Your task to perform on an android device: Open Google Chrome and click the shortcut for Amazon.com Image 0: 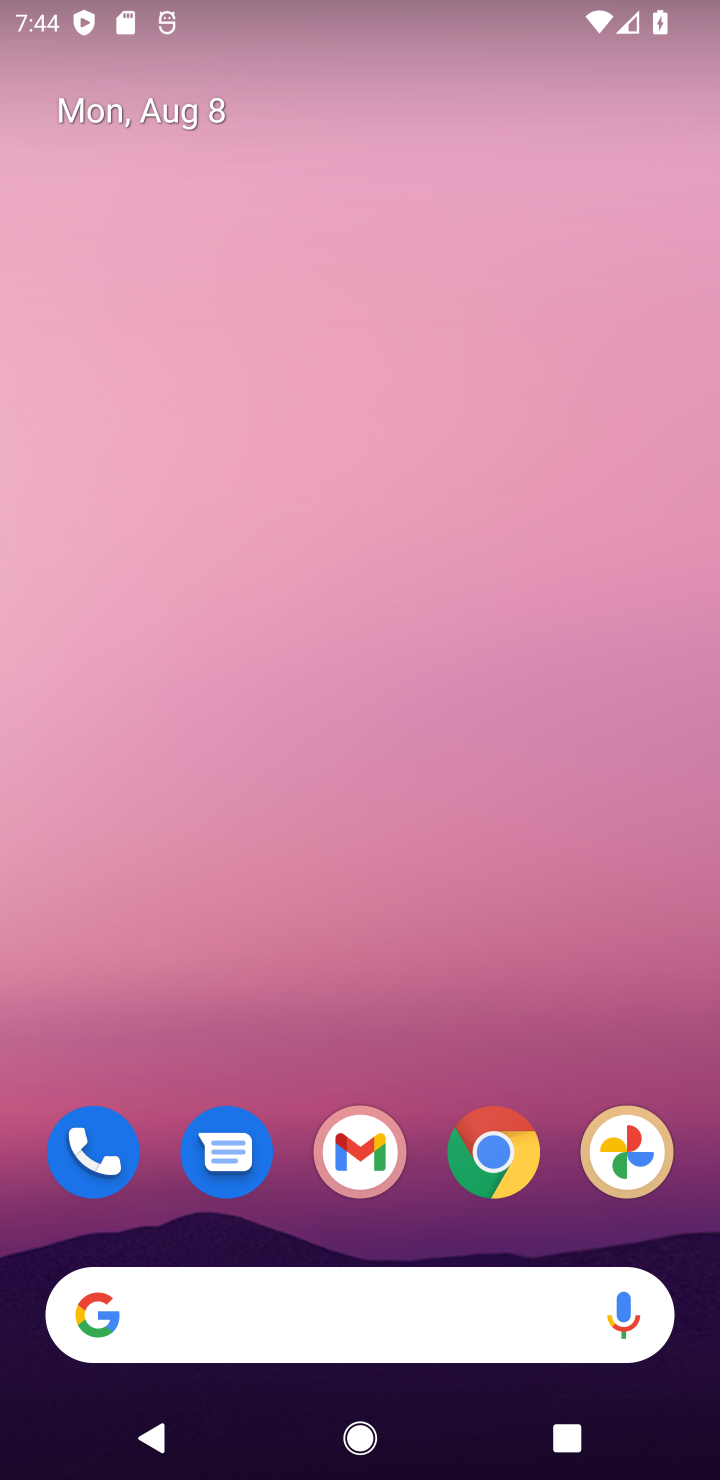
Step 0: click (499, 1147)
Your task to perform on an android device: Open Google Chrome and click the shortcut for Amazon.com Image 1: 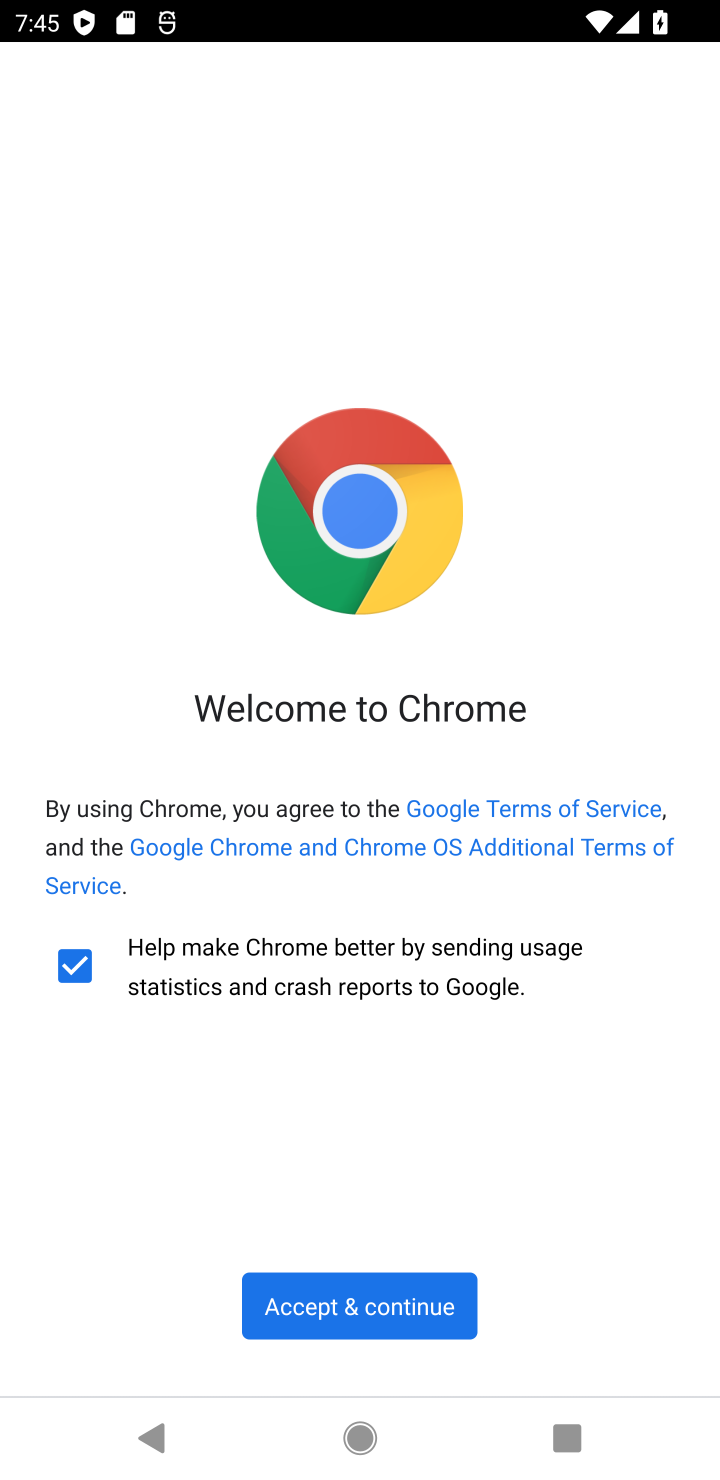
Step 1: click (371, 1299)
Your task to perform on an android device: Open Google Chrome and click the shortcut for Amazon.com Image 2: 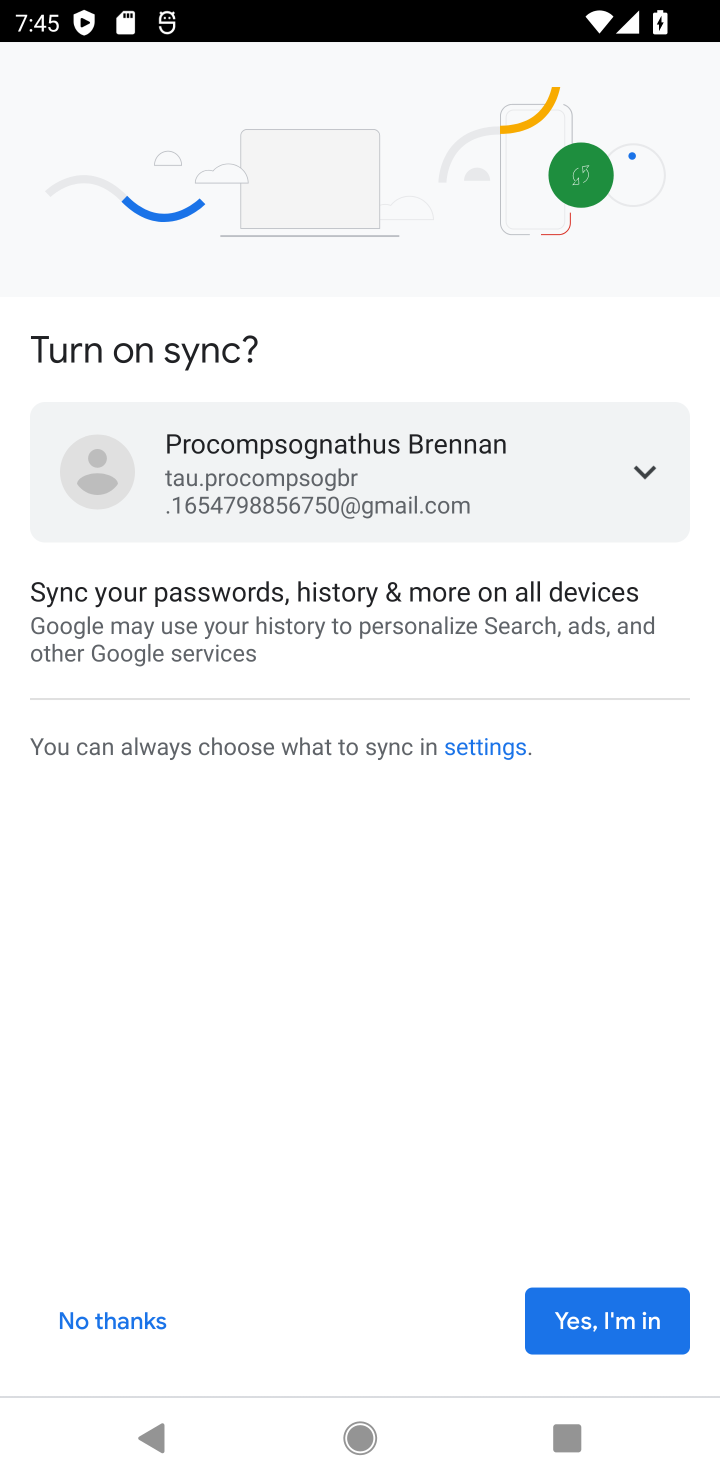
Step 2: click (606, 1336)
Your task to perform on an android device: Open Google Chrome and click the shortcut for Amazon.com Image 3: 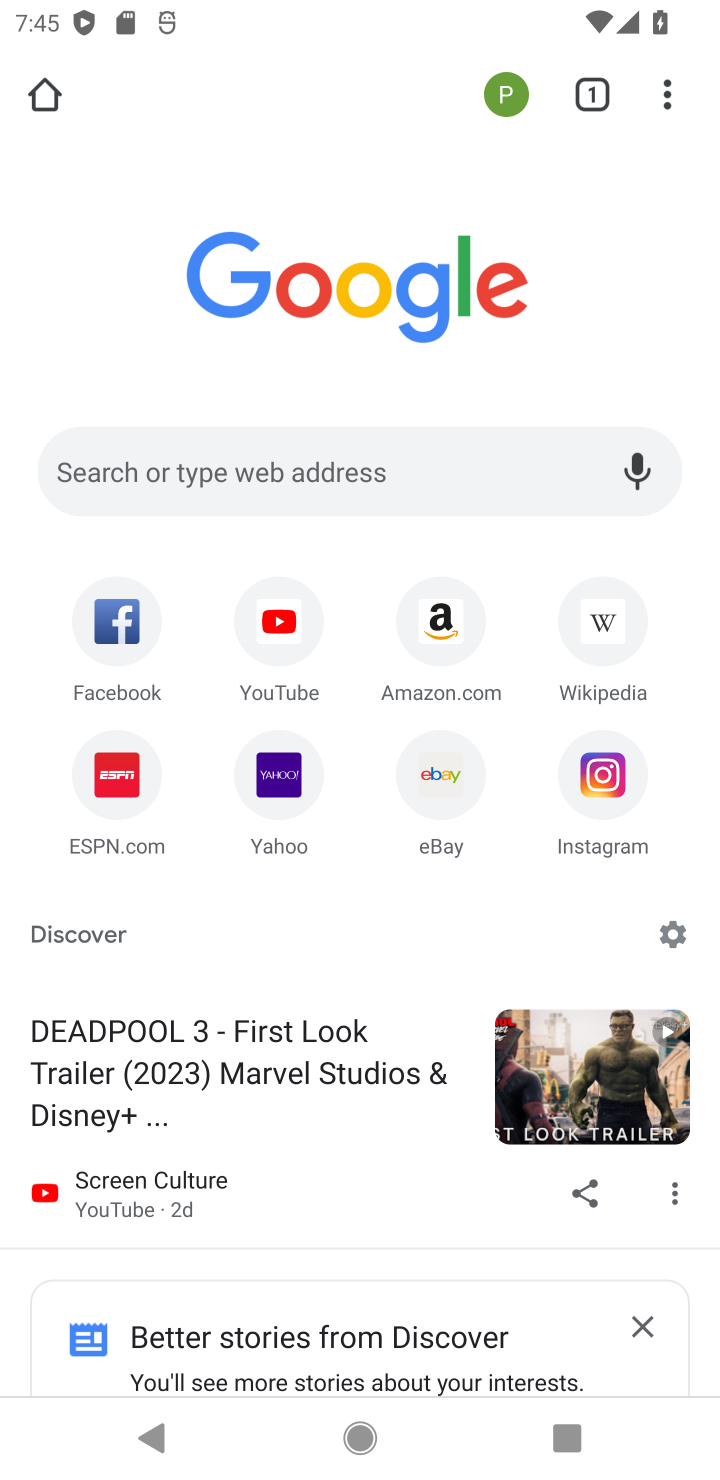
Step 3: click (430, 616)
Your task to perform on an android device: Open Google Chrome and click the shortcut for Amazon.com Image 4: 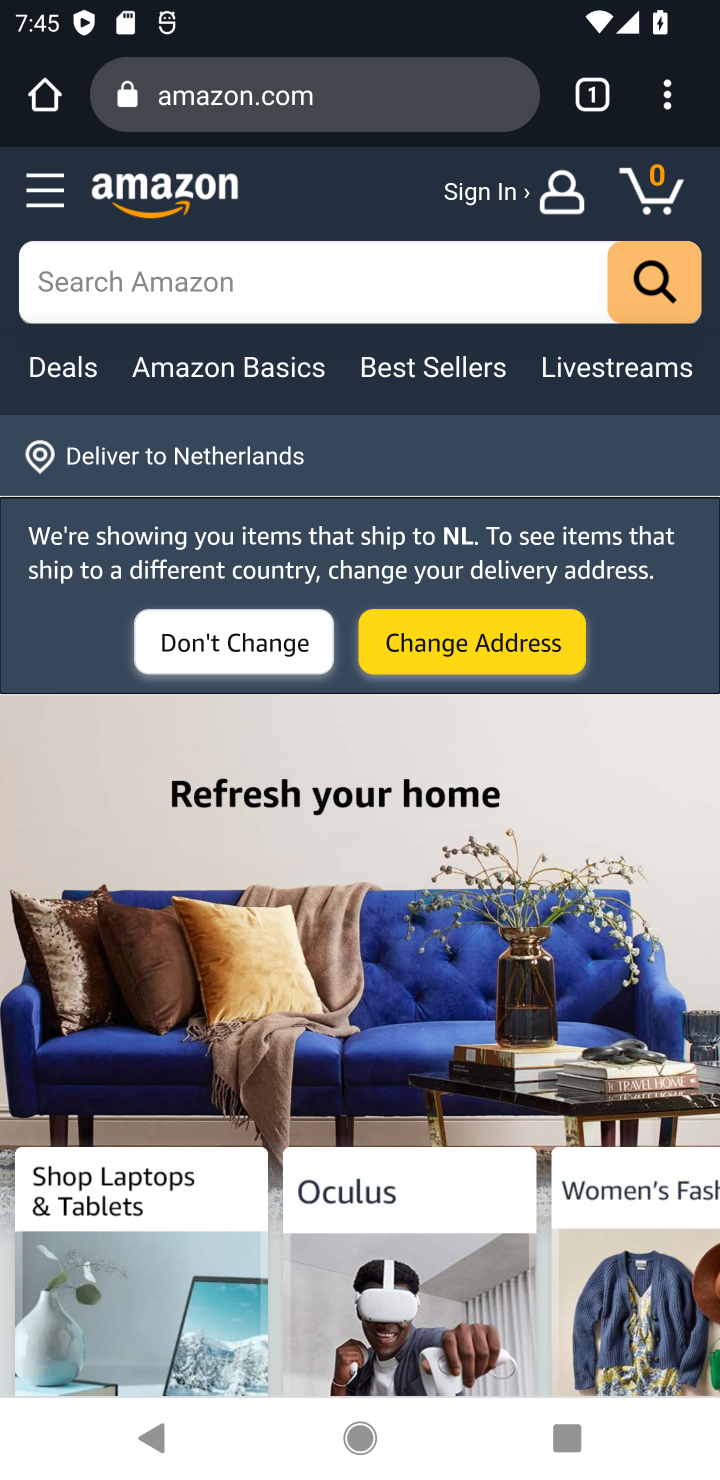
Step 4: task complete